Your task to perform on an android device: delete a single message in the gmail app Image 0: 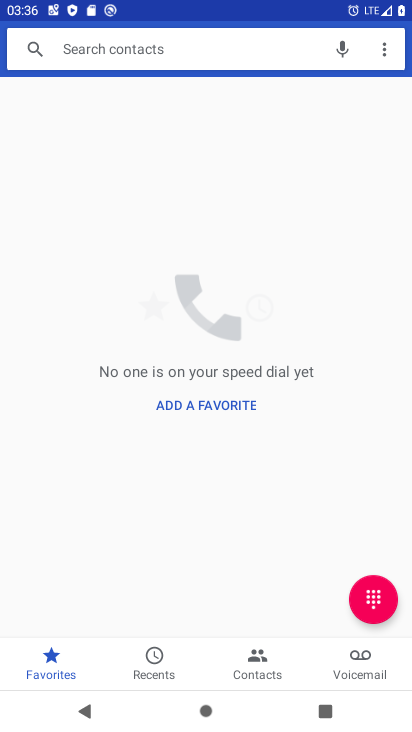
Step 0: press home button
Your task to perform on an android device: delete a single message in the gmail app Image 1: 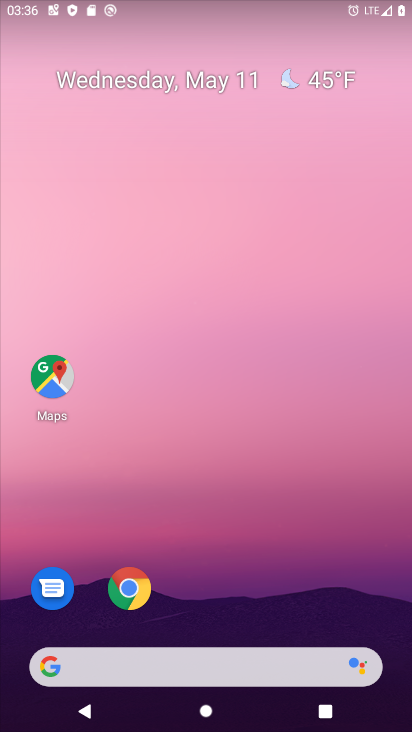
Step 1: drag from (258, 602) to (259, 194)
Your task to perform on an android device: delete a single message in the gmail app Image 2: 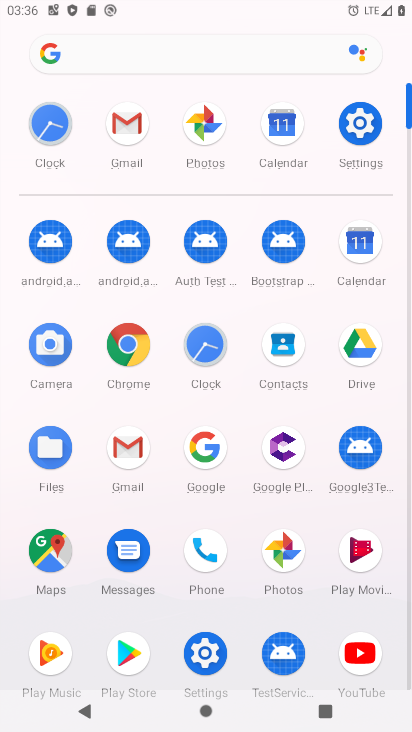
Step 2: click (142, 132)
Your task to perform on an android device: delete a single message in the gmail app Image 3: 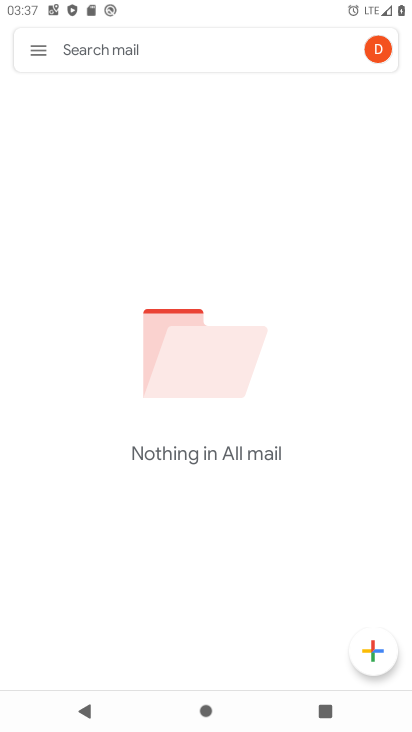
Step 3: click (47, 52)
Your task to perform on an android device: delete a single message in the gmail app Image 4: 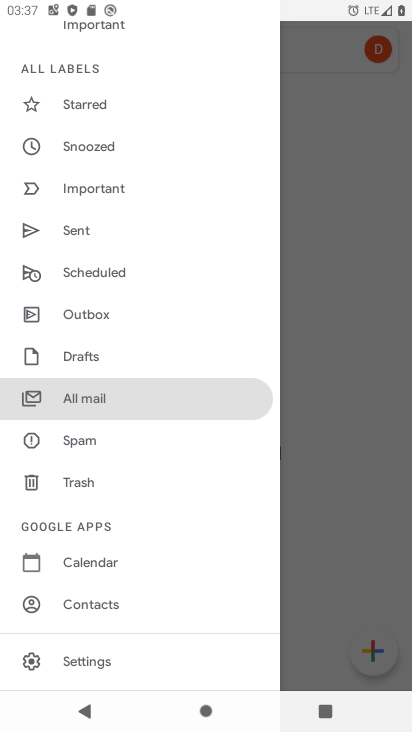
Step 4: click (120, 390)
Your task to perform on an android device: delete a single message in the gmail app Image 5: 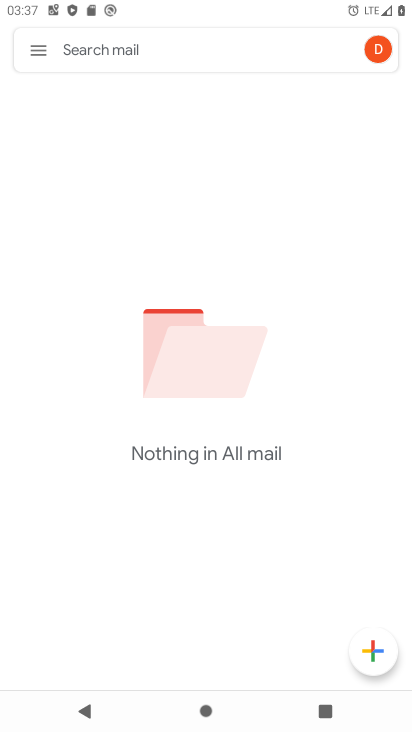
Step 5: task complete